Your task to perform on an android device: Go to eBay Image 0: 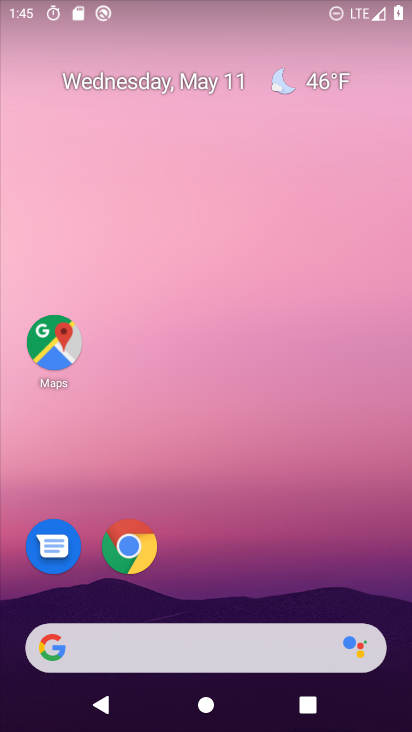
Step 0: drag from (235, 666) to (230, 328)
Your task to perform on an android device: Go to eBay Image 1: 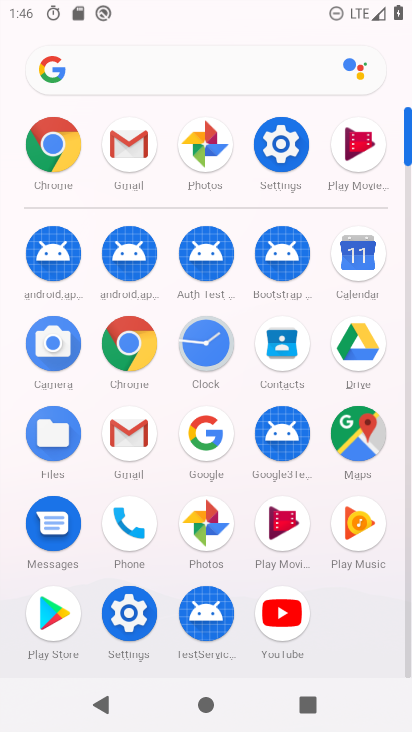
Step 1: click (63, 150)
Your task to perform on an android device: Go to eBay Image 2: 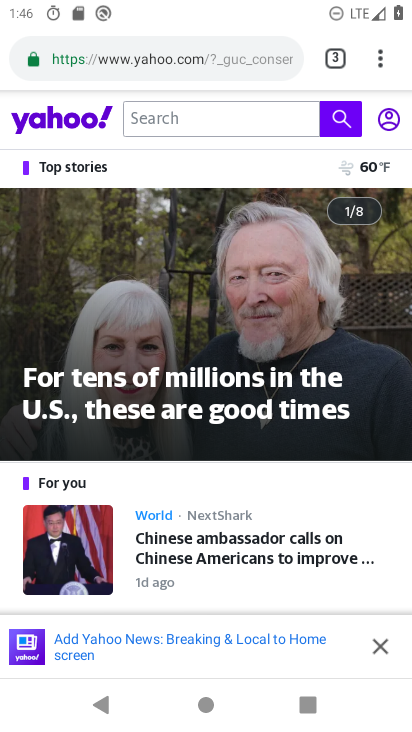
Step 2: click (324, 54)
Your task to perform on an android device: Go to eBay Image 3: 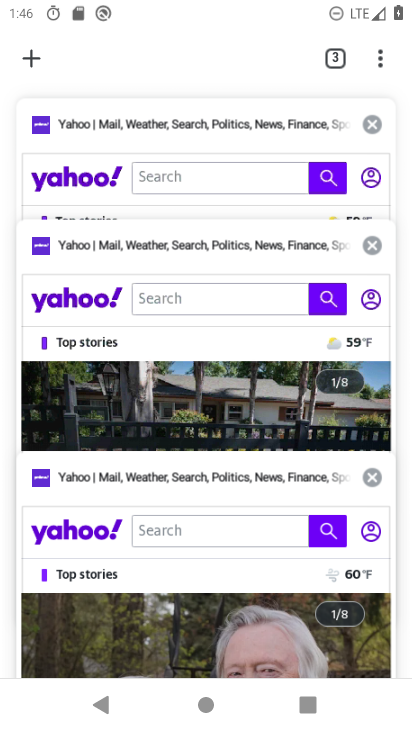
Step 3: click (35, 57)
Your task to perform on an android device: Go to eBay Image 4: 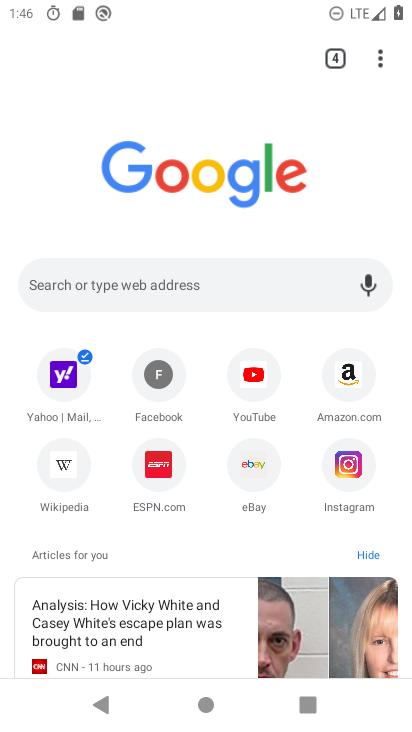
Step 4: click (249, 481)
Your task to perform on an android device: Go to eBay Image 5: 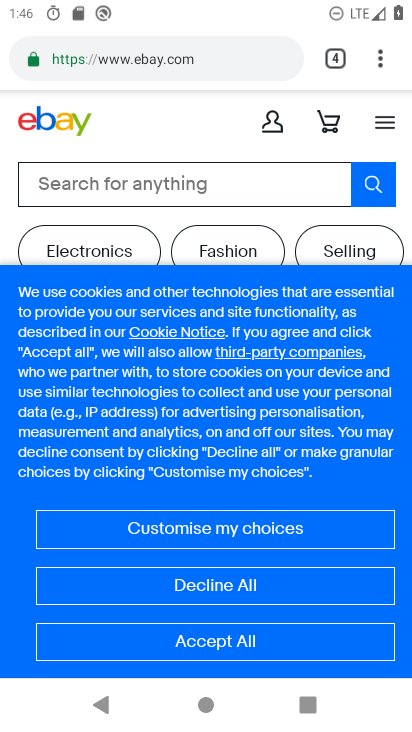
Step 5: task complete